Your task to perform on an android device: open a bookmark in the chrome app Image 0: 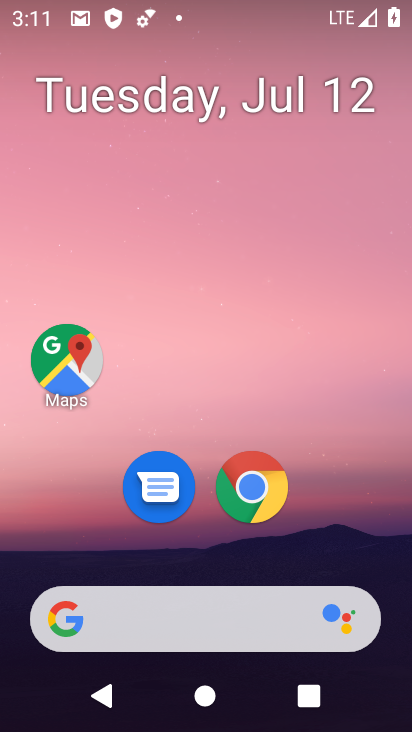
Step 0: drag from (238, 642) to (238, 148)
Your task to perform on an android device: open a bookmark in the chrome app Image 1: 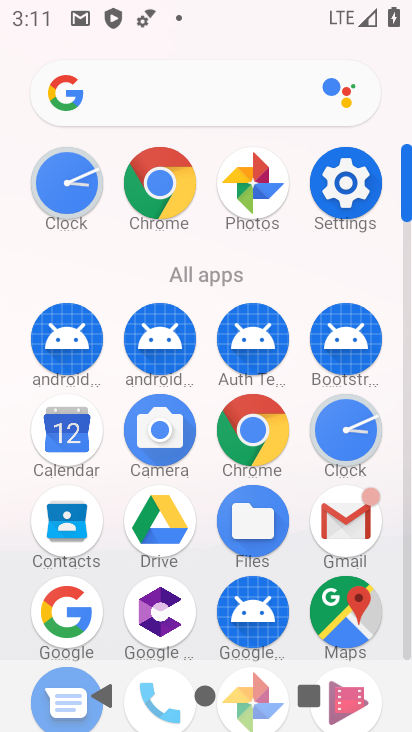
Step 1: click (267, 445)
Your task to perform on an android device: open a bookmark in the chrome app Image 2: 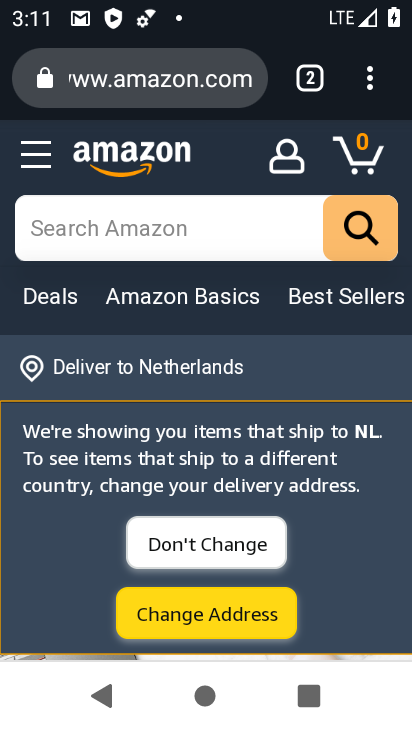
Step 2: click (368, 87)
Your task to perform on an android device: open a bookmark in the chrome app Image 3: 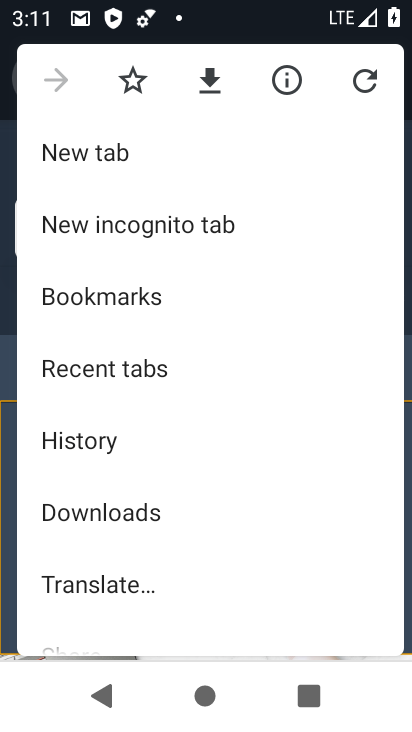
Step 3: click (108, 299)
Your task to perform on an android device: open a bookmark in the chrome app Image 4: 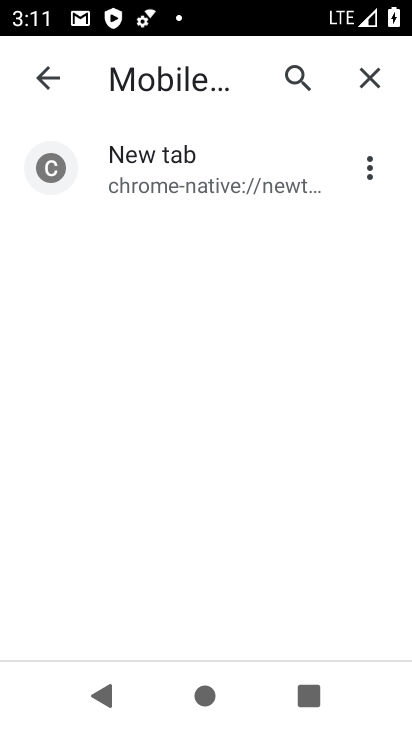
Step 4: click (184, 180)
Your task to perform on an android device: open a bookmark in the chrome app Image 5: 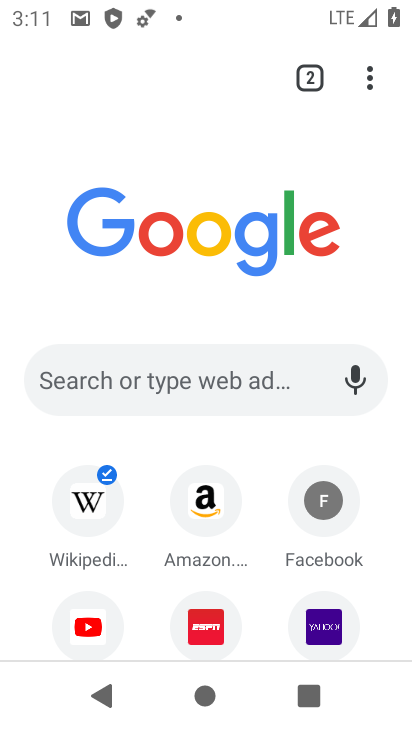
Step 5: task complete